Your task to perform on an android device: Go to Wikipedia Image 0: 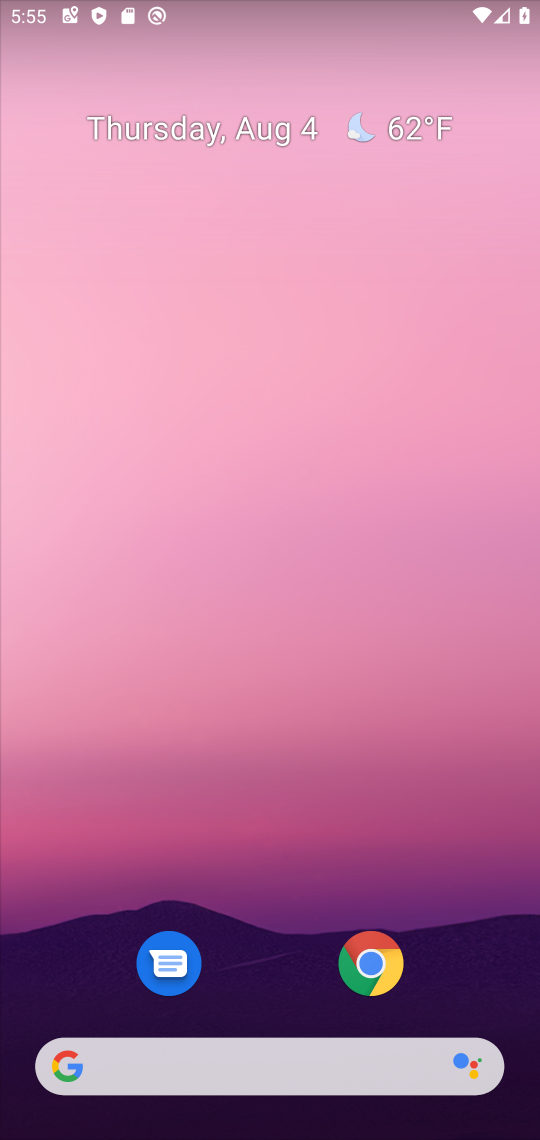
Step 0: press home button
Your task to perform on an android device: Go to Wikipedia Image 1: 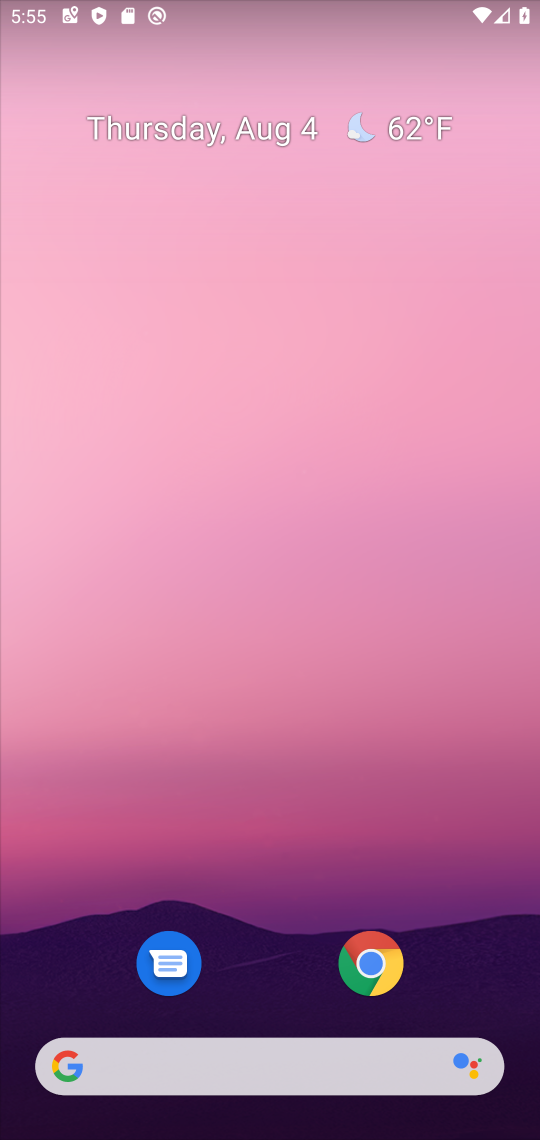
Step 1: click (370, 963)
Your task to perform on an android device: Go to Wikipedia Image 2: 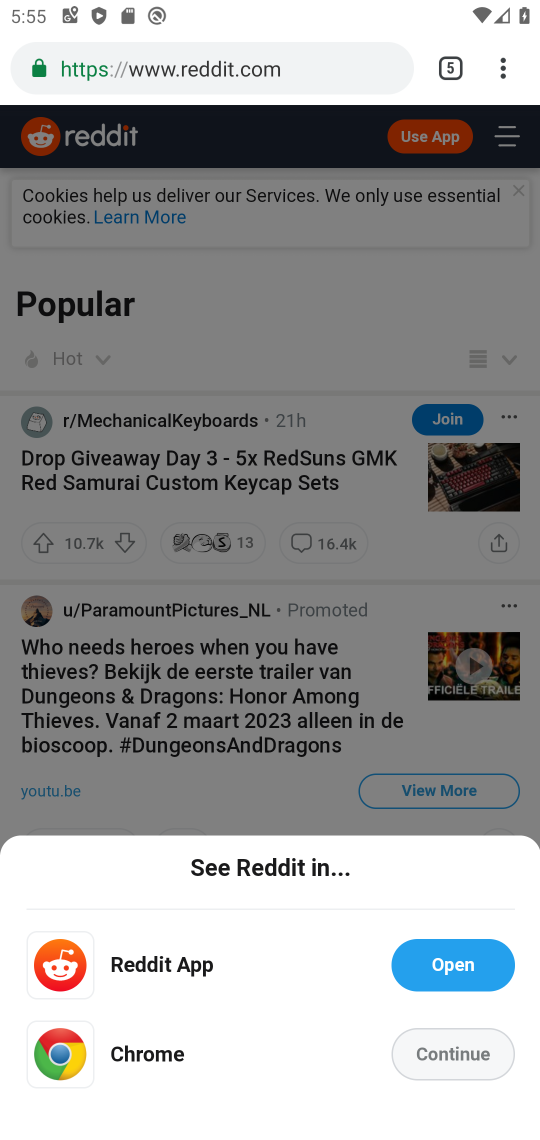
Step 2: click (457, 1051)
Your task to perform on an android device: Go to Wikipedia Image 3: 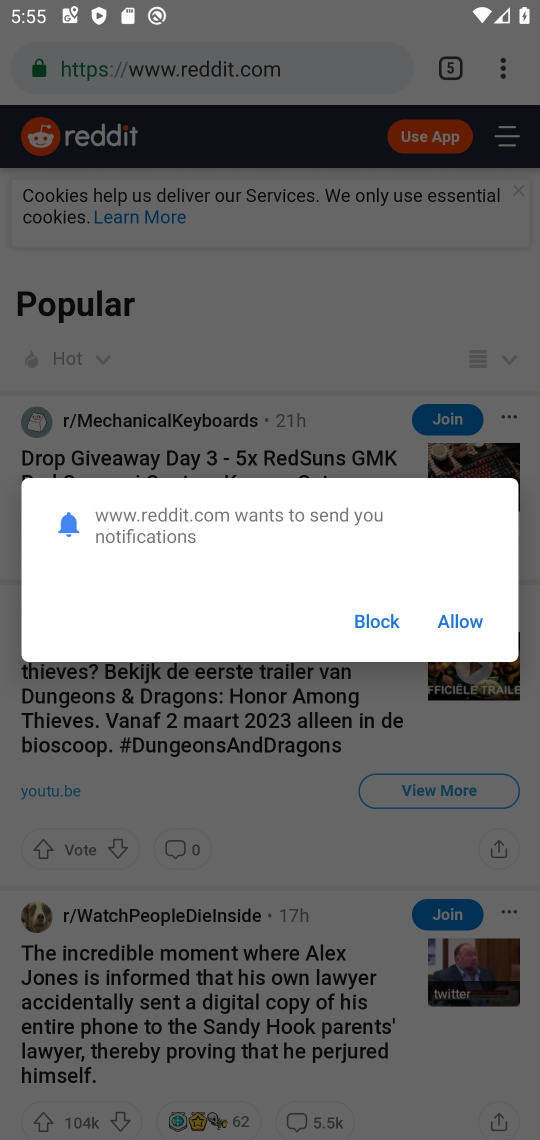
Step 3: click (465, 614)
Your task to perform on an android device: Go to Wikipedia Image 4: 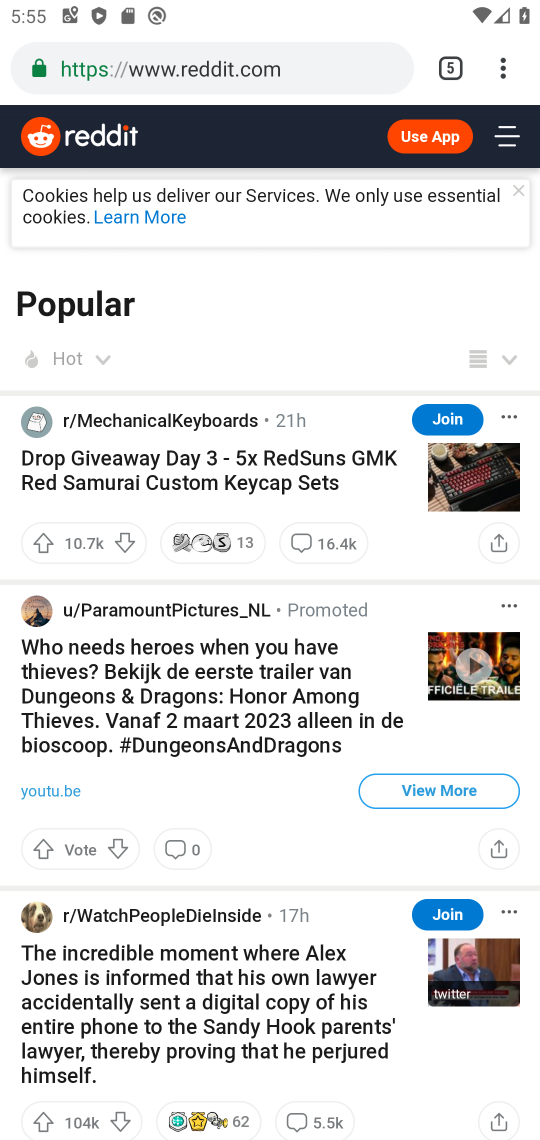
Step 4: click (506, 58)
Your task to perform on an android device: Go to Wikipedia Image 5: 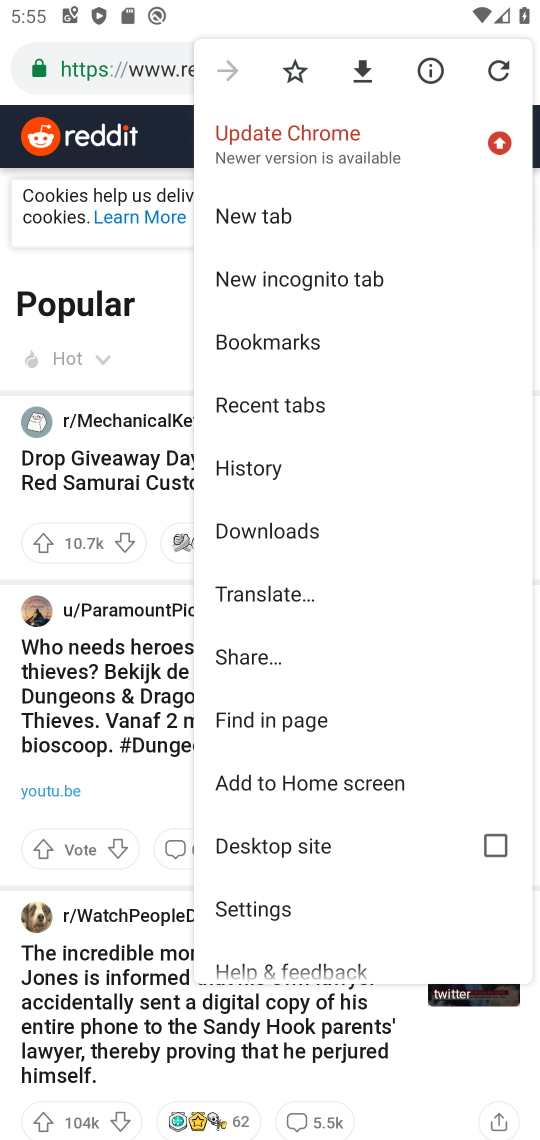
Step 5: click (269, 209)
Your task to perform on an android device: Go to Wikipedia Image 6: 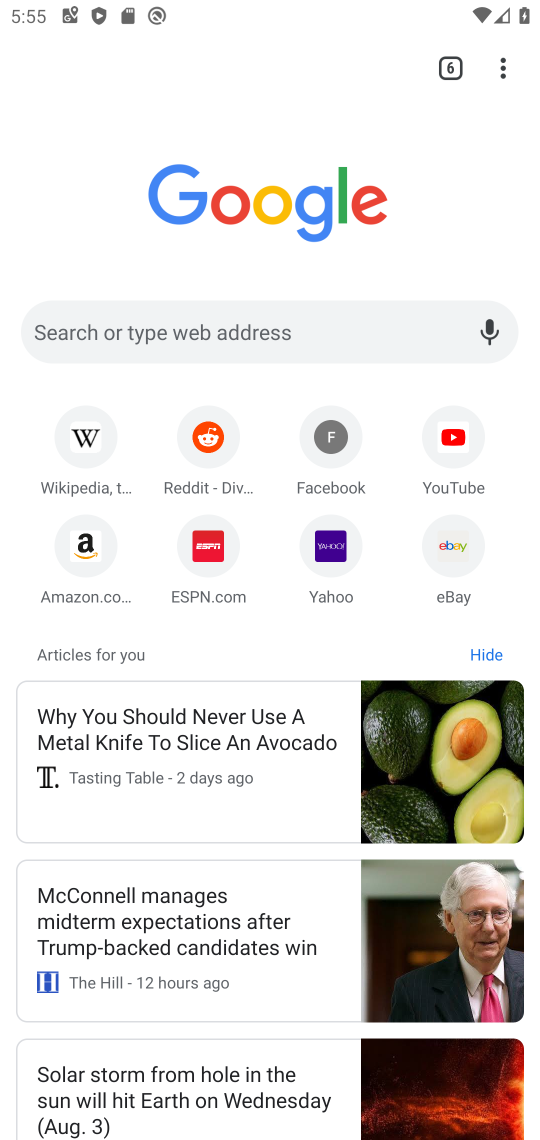
Step 6: click (96, 441)
Your task to perform on an android device: Go to Wikipedia Image 7: 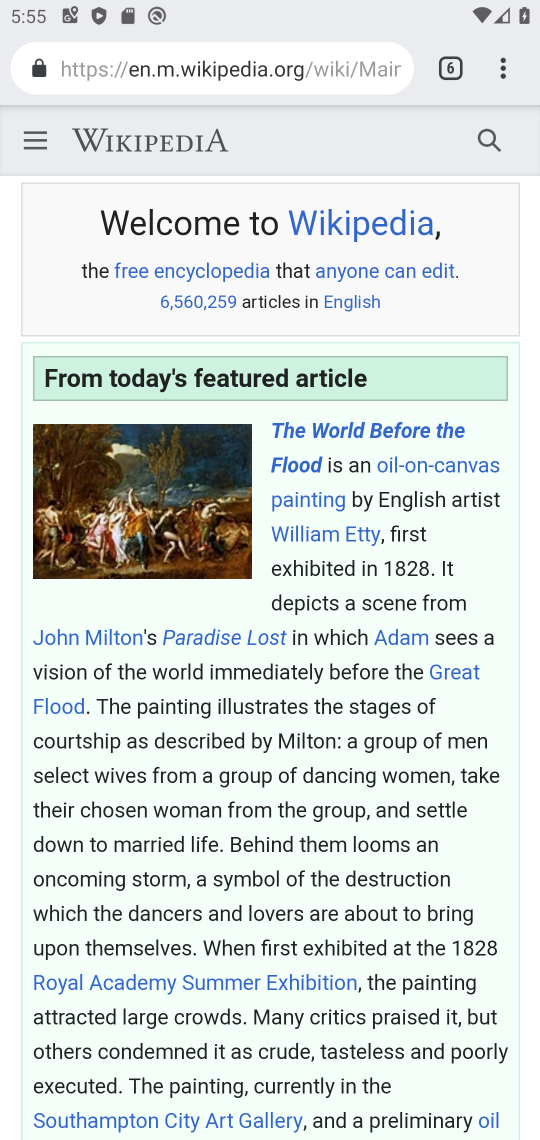
Step 7: task complete